Your task to perform on an android device: change the upload size in google photos Image 0: 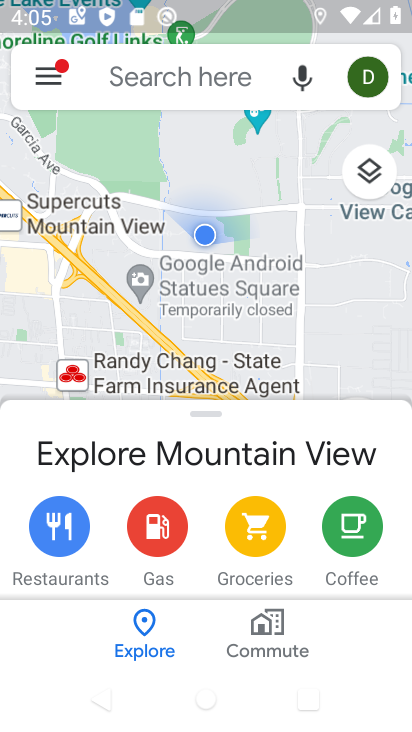
Step 0: press back button
Your task to perform on an android device: change the upload size in google photos Image 1: 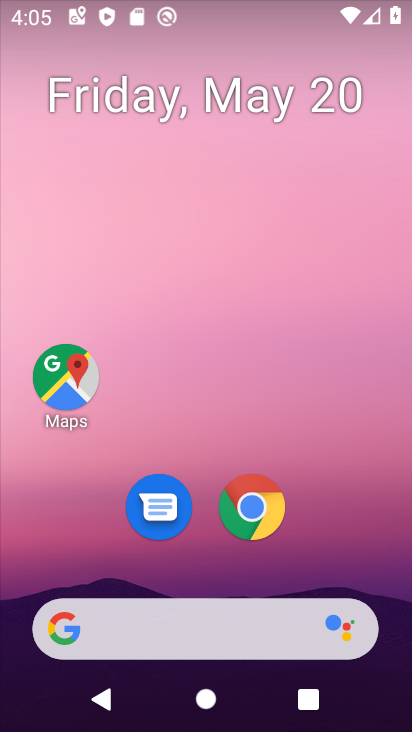
Step 1: drag from (336, 566) to (212, 134)
Your task to perform on an android device: change the upload size in google photos Image 2: 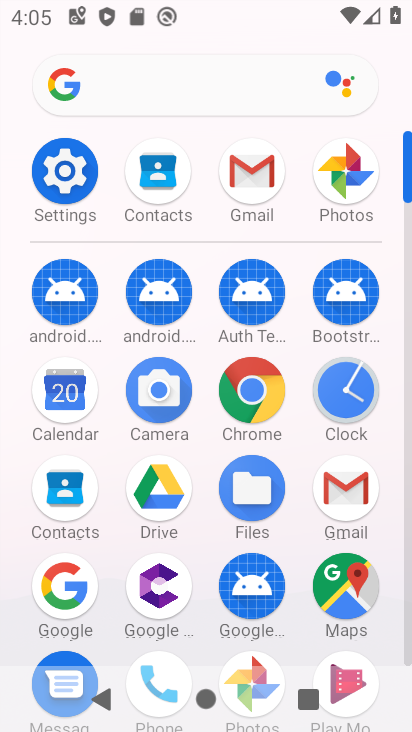
Step 2: click (348, 169)
Your task to perform on an android device: change the upload size in google photos Image 3: 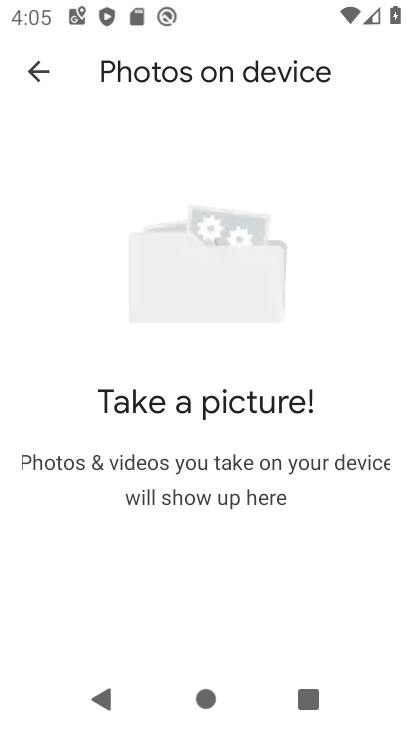
Step 3: click (40, 77)
Your task to perform on an android device: change the upload size in google photos Image 4: 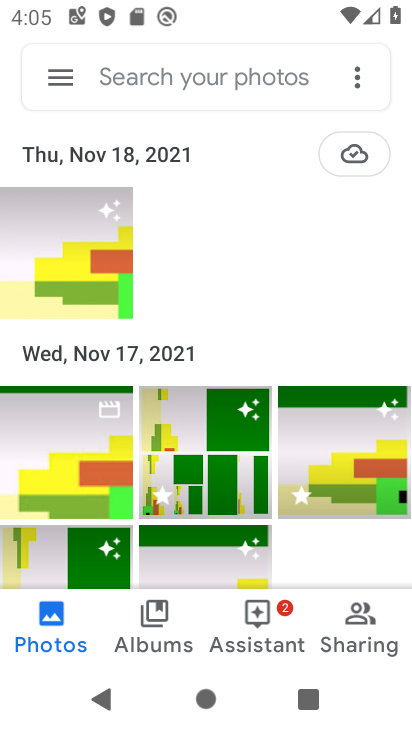
Step 4: click (65, 83)
Your task to perform on an android device: change the upload size in google photos Image 5: 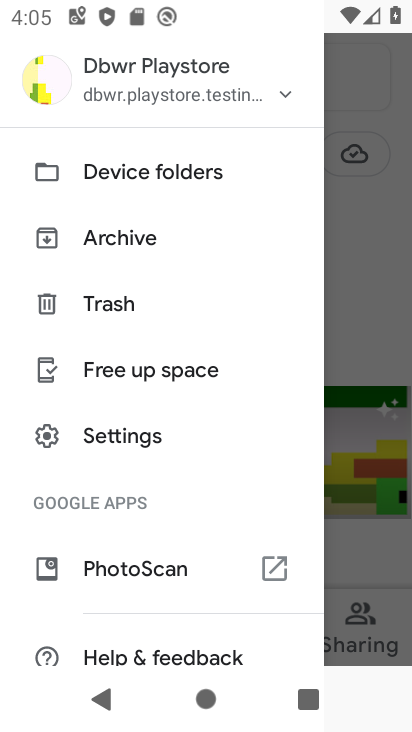
Step 5: click (134, 440)
Your task to perform on an android device: change the upload size in google photos Image 6: 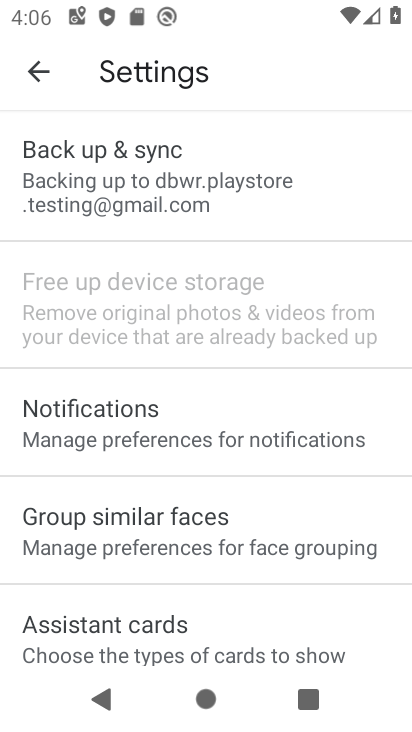
Step 6: click (98, 160)
Your task to perform on an android device: change the upload size in google photos Image 7: 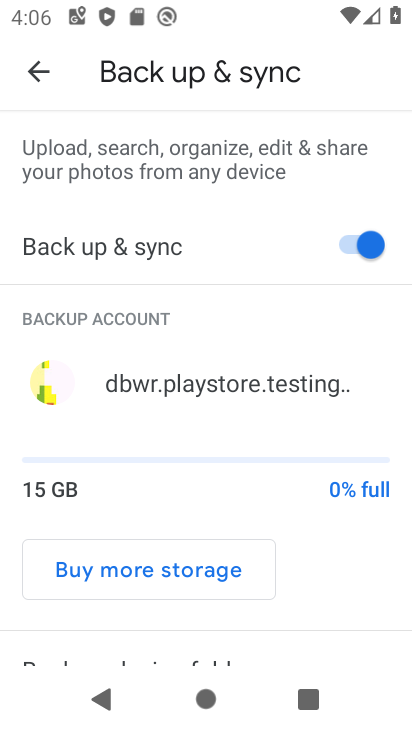
Step 7: drag from (150, 493) to (222, 344)
Your task to perform on an android device: change the upload size in google photos Image 8: 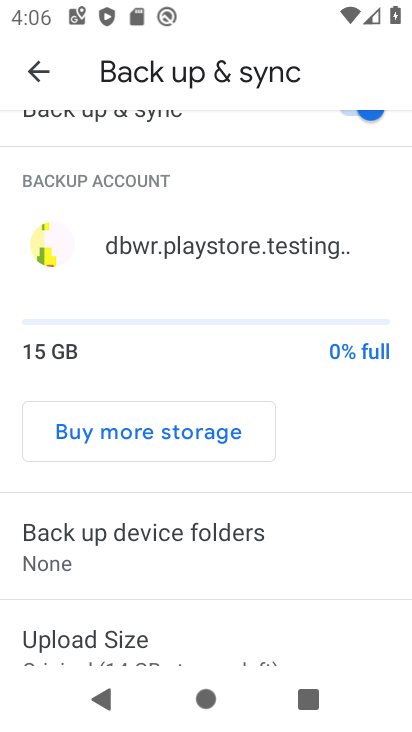
Step 8: drag from (174, 602) to (234, 477)
Your task to perform on an android device: change the upload size in google photos Image 9: 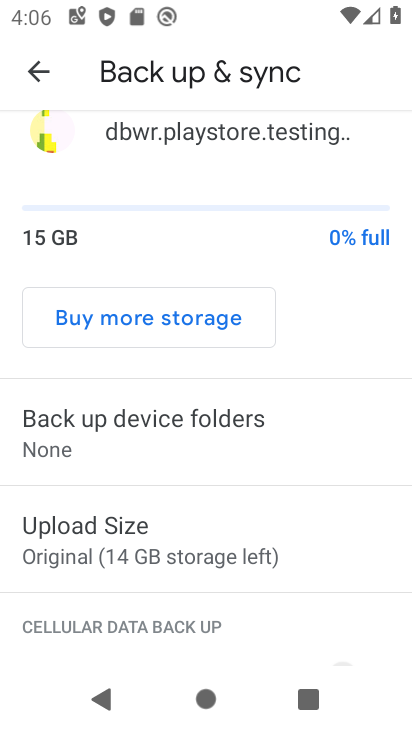
Step 9: click (220, 561)
Your task to perform on an android device: change the upload size in google photos Image 10: 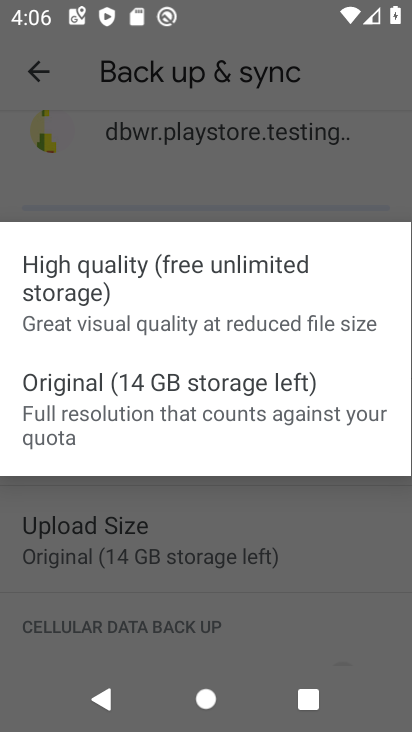
Step 10: click (171, 279)
Your task to perform on an android device: change the upload size in google photos Image 11: 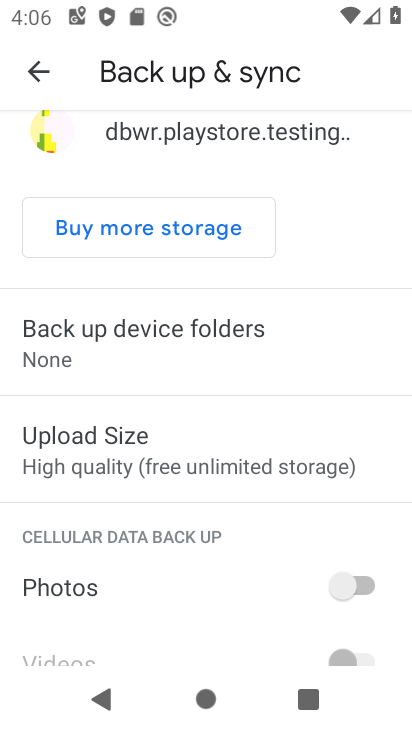
Step 11: task complete